Your task to perform on an android device: Show me the alarms in the clock app Image 0: 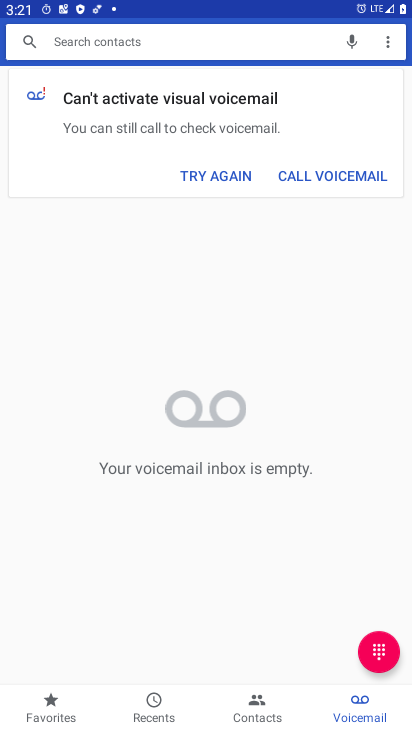
Step 0: press home button
Your task to perform on an android device: Show me the alarms in the clock app Image 1: 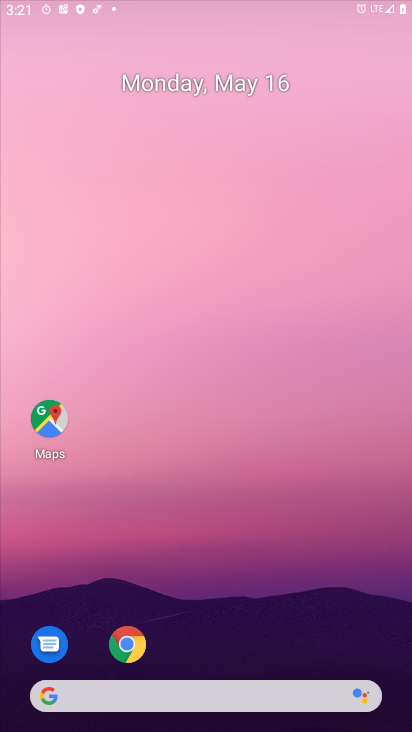
Step 1: drag from (221, 692) to (236, 130)
Your task to perform on an android device: Show me the alarms in the clock app Image 2: 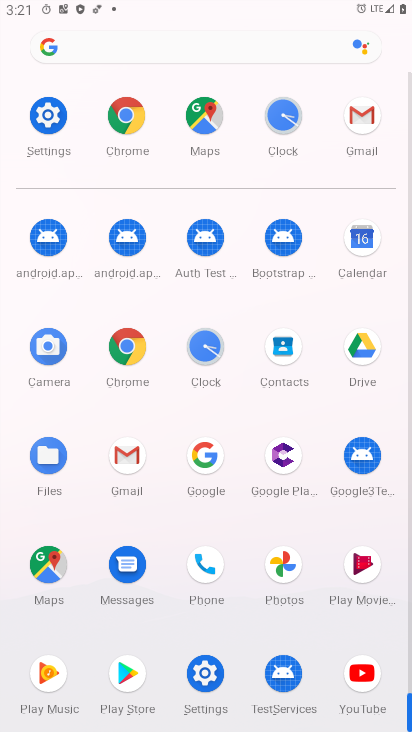
Step 2: click (282, 117)
Your task to perform on an android device: Show me the alarms in the clock app Image 3: 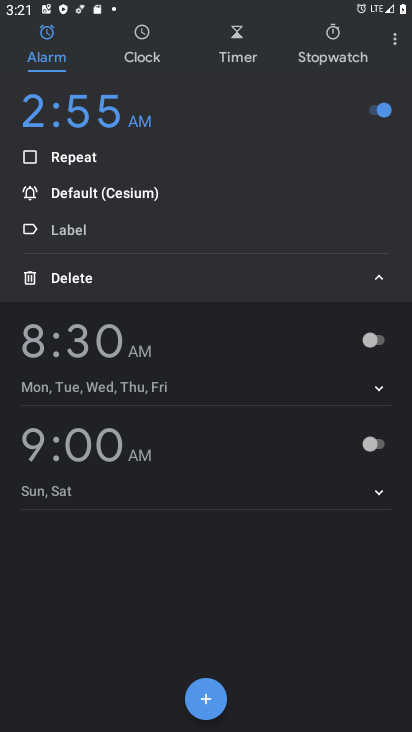
Step 3: task complete